Your task to perform on an android device: turn on translation in the chrome app Image 0: 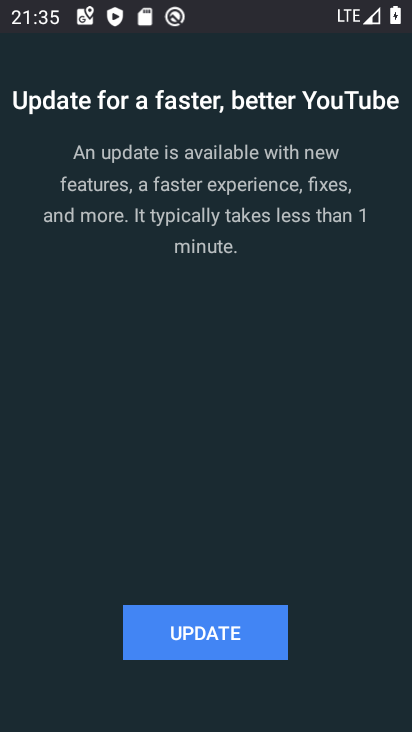
Step 0: press home button
Your task to perform on an android device: turn on translation in the chrome app Image 1: 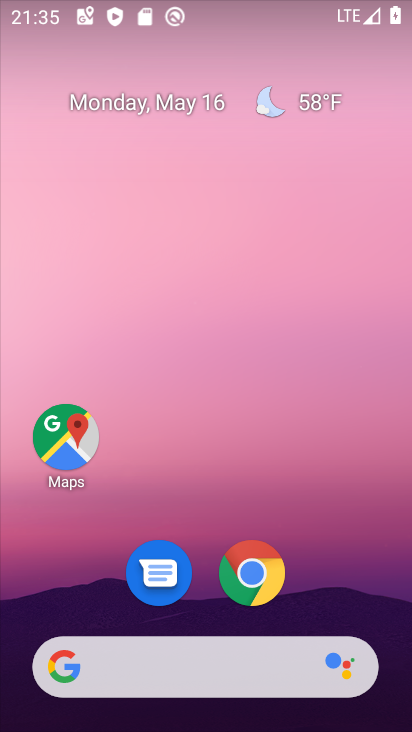
Step 1: click (257, 569)
Your task to perform on an android device: turn on translation in the chrome app Image 2: 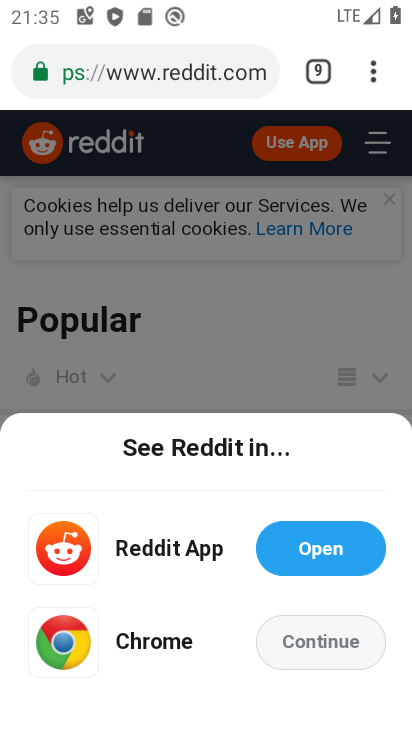
Step 2: click (373, 79)
Your task to perform on an android device: turn on translation in the chrome app Image 3: 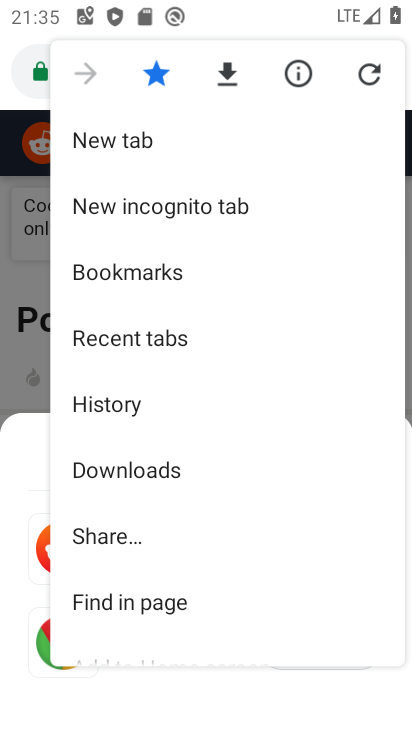
Step 3: drag from (176, 577) to (180, 208)
Your task to perform on an android device: turn on translation in the chrome app Image 4: 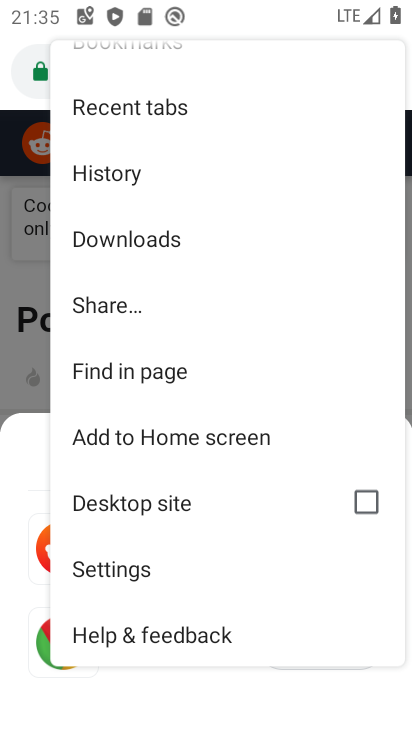
Step 4: click (128, 568)
Your task to perform on an android device: turn on translation in the chrome app Image 5: 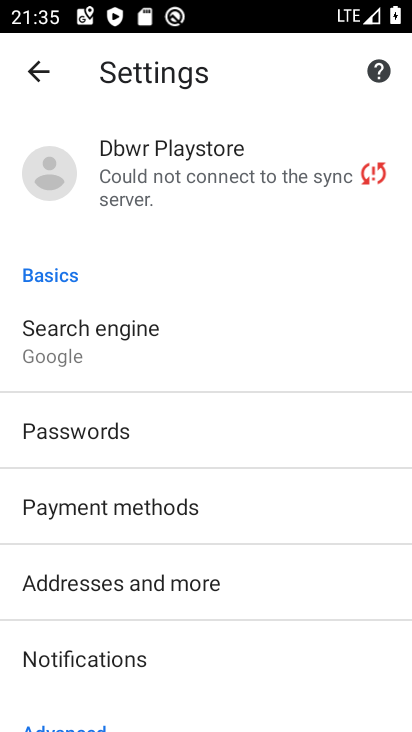
Step 5: drag from (160, 539) to (160, 165)
Your task to perform on an android device: turn on translation in the chrome app Image 6: 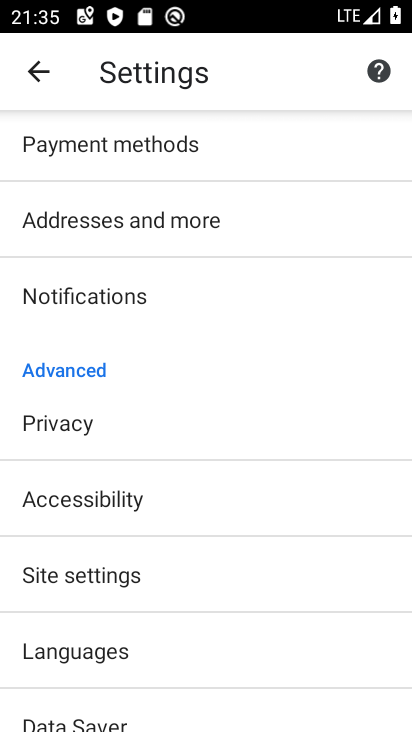
Step 6: click (85, 650)
Your task to perform on an android device: turn on translation in the chrome app Image 7: 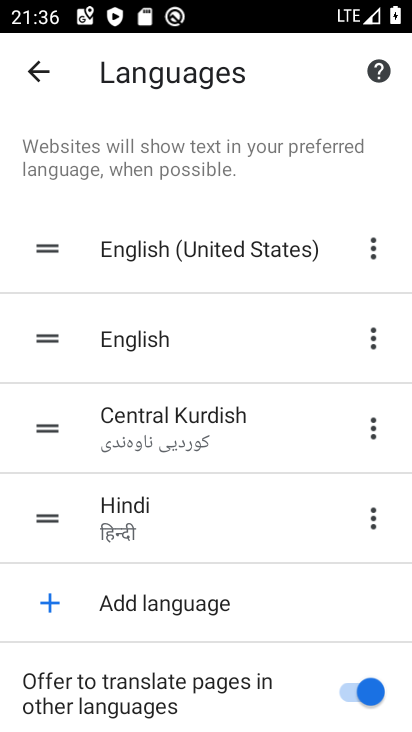
Step 7: task complete